Your task to perform on an android device: empty trash in the gmail app Image 0: 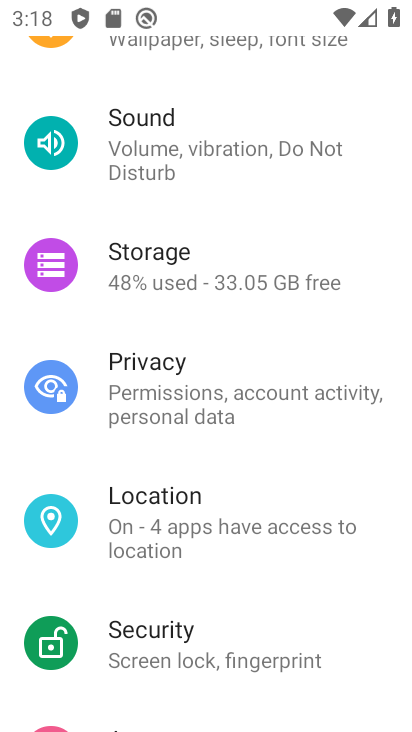
Step 0: press home button
Your task to perform on an android device: empty trash in the gmail app Image 1: 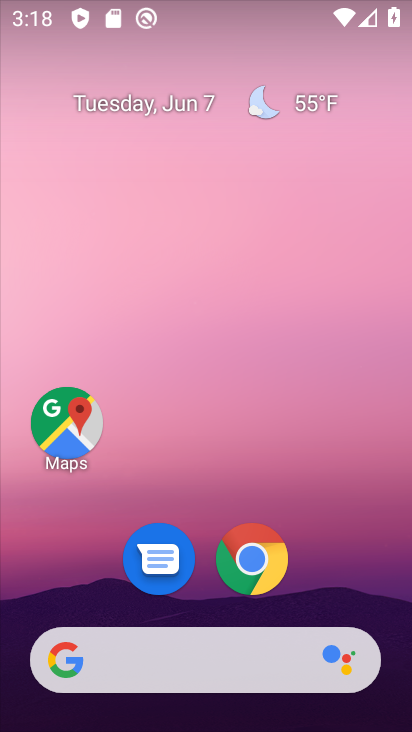
Step 1: drag from (194, 706) to (191, 198)
Your task to perform on an android device: empty trash in the gmail app Image 2: 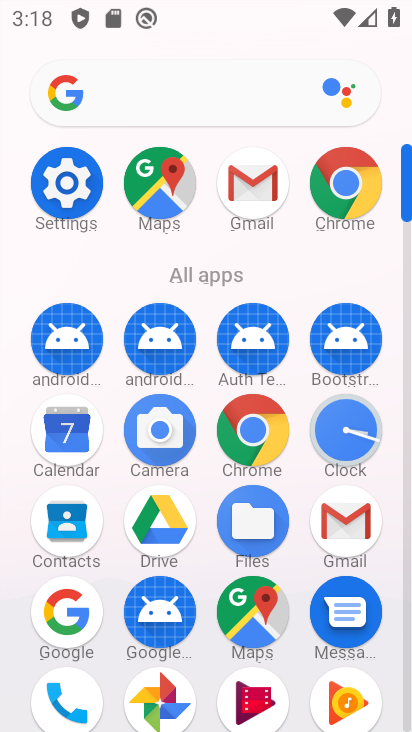
Step 2: click (343, 520)
Your task to perform on an android device: empty trash in the gmail app Image 3: 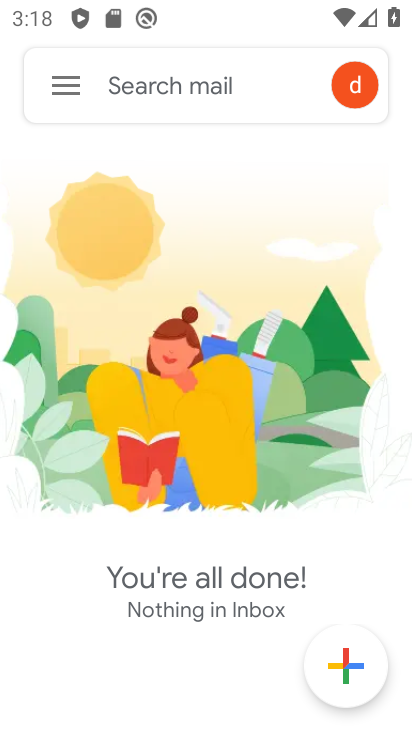
Step 3: click (58, 80)
Your task to perform on an android device: empty trash in the gmail app Image 4: 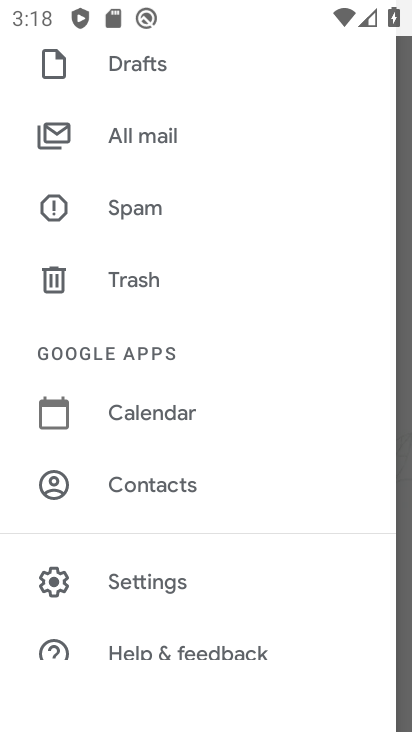
Step 4: click (132, 274)
Your task to perform on an android device: empty trash in the gmail app Image 5: 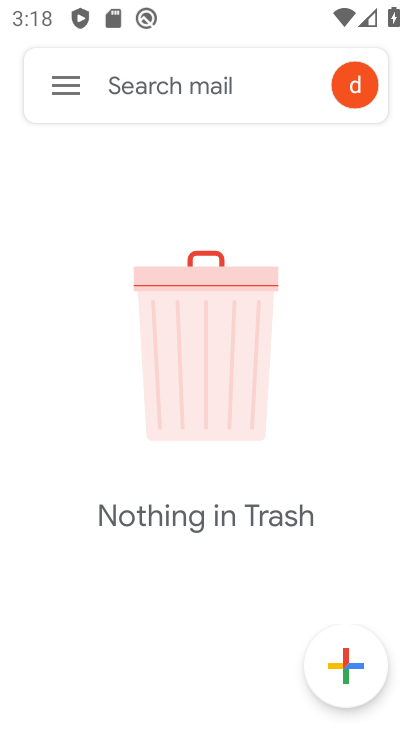
Step 5: task complete